Your task to perform on an android device: delete a single message in the gmail app Image 0: 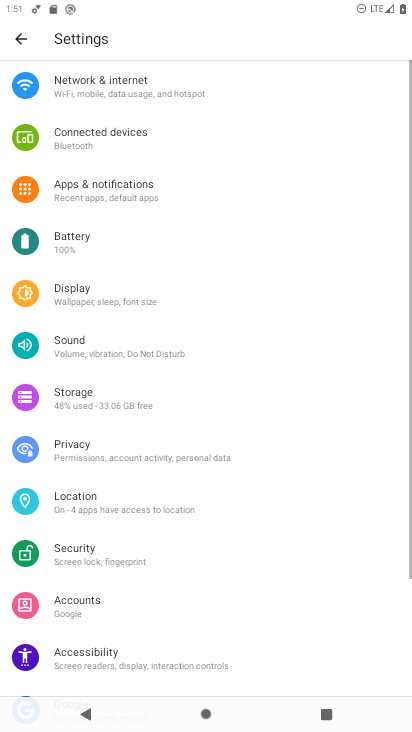
Step 0: press home button
Your task to perform on an android device: delete a single message in the gmail app Image 1: 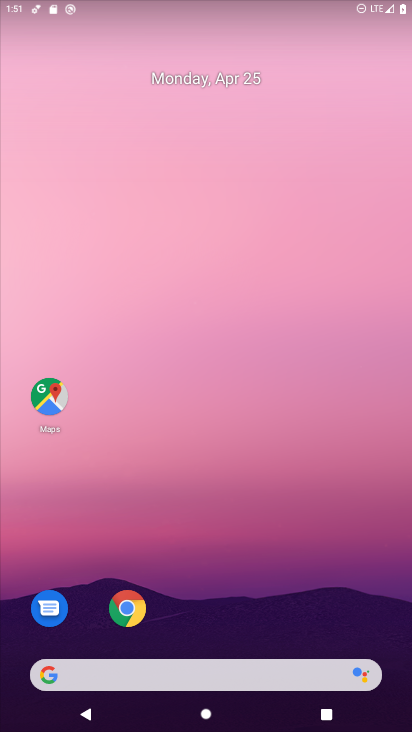
Step 1: drag from (382, 626) to (287, 57)
Your task to perform on an android device: delete a single message in the gmail app Image 2: 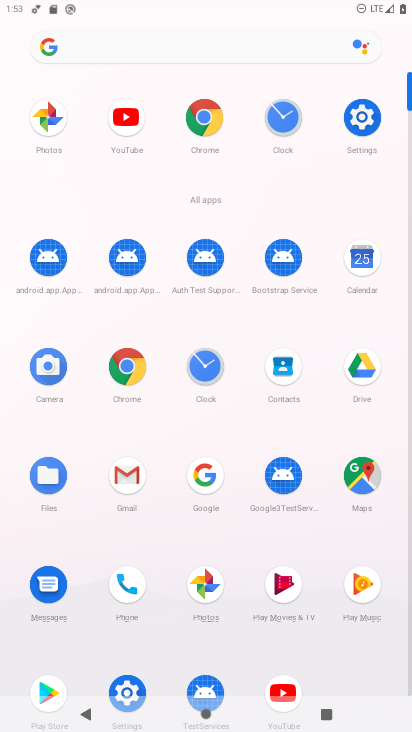
Step 2: click (112, 487)
Your task to perform on an android device: delete a single message in the gmail app Image 3: 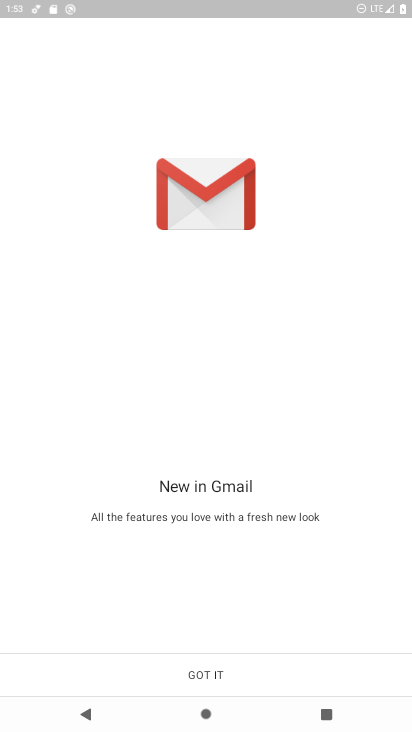
Step 3: click (233, 662)
Your task to perform on an android device: delete a single message in the gmail app Image 4: 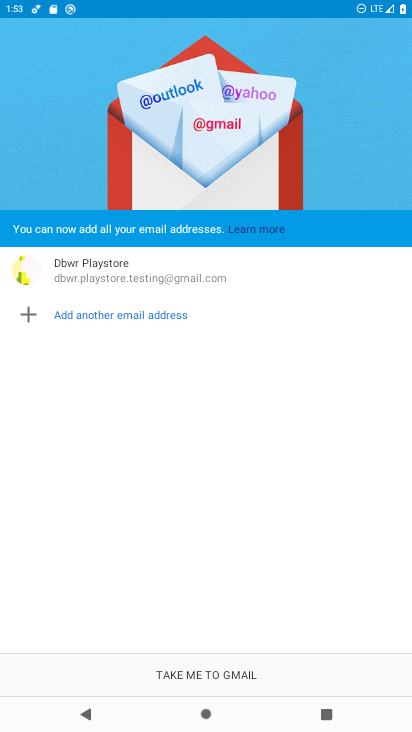
Step 4: click (233, 662)
Your task to perform on an android device: delete a single message in the gmail app Image 5: 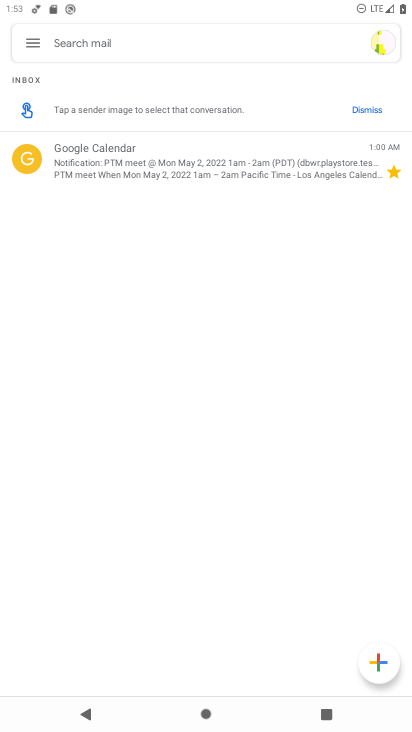
Step 5: click (129, 146)
Your task to perform on an android device: delete a single message in the gmail app Image 6: 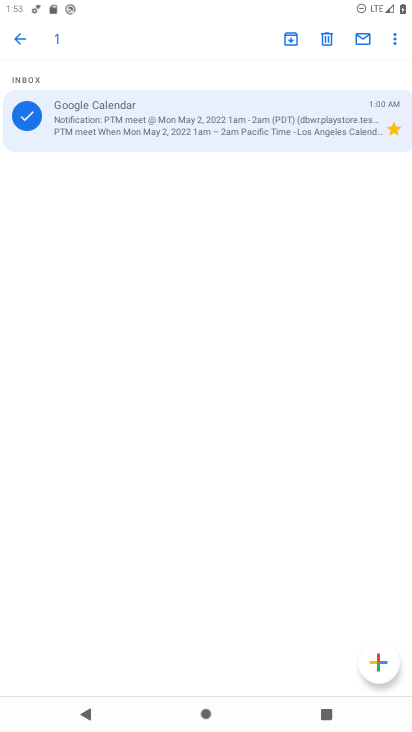
Step 6: click (325, 30)
Your task to perform on an android device: delete a single message in the gmail app Image 7: 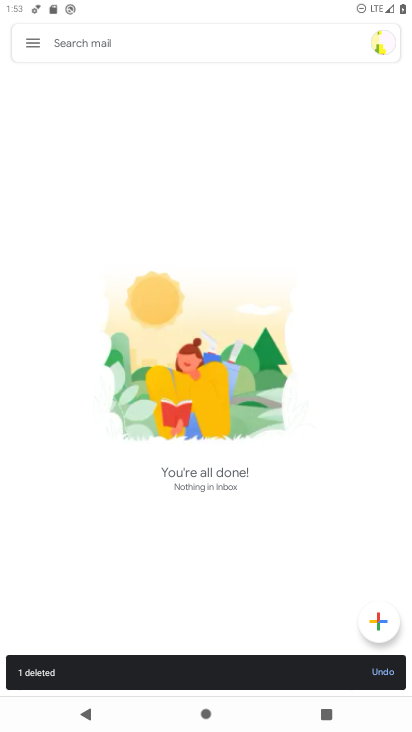
Step 7: task complete